Your task to perform on an android device: Go to privacy settings Image 0: 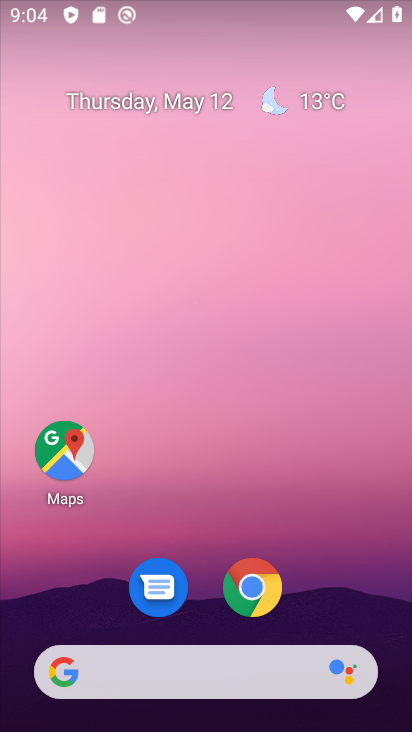
Step 0: drag from (225, 617) to (173, 59)
Your task to perform on an android device: Go to privacy settings Image 1: 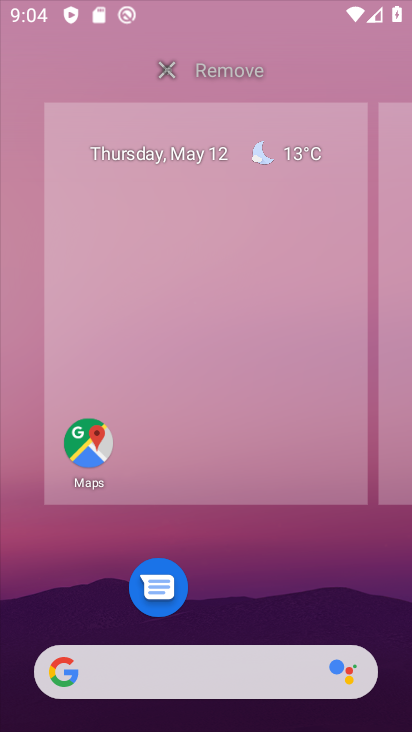
Step 1: click (232, 563)
Your task to perform on an android device: Go to privacy settings Image 2: 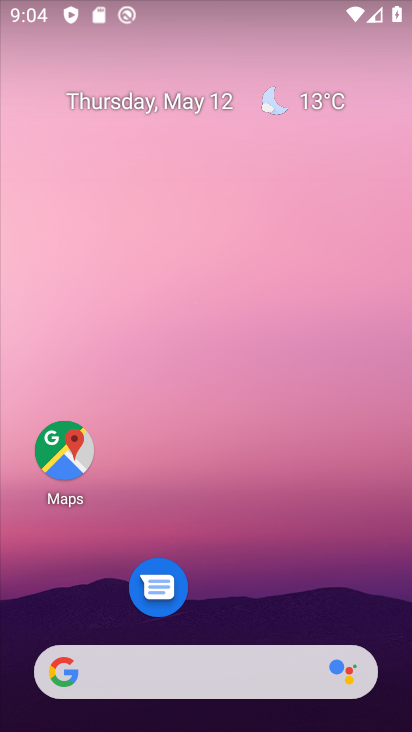
Step 2: drag from (232, 563) to (190, 20)
Your task to perform on an android device: Go to privacy settings Image 3: 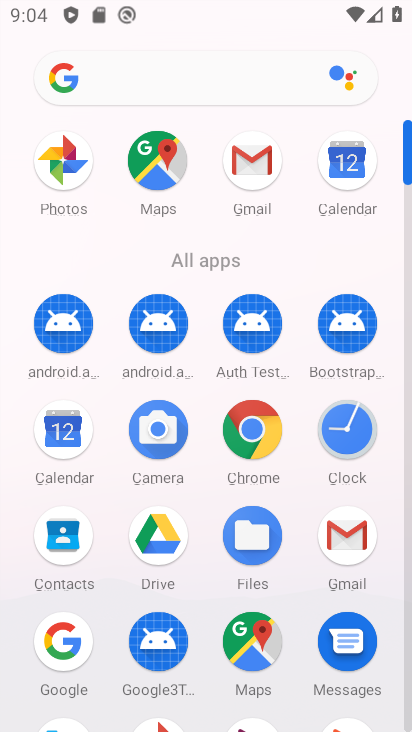
Step 3: drag from (214, 514) to (173, 2)
Your task to perform on an android device: Go to privacy settings Image 4: 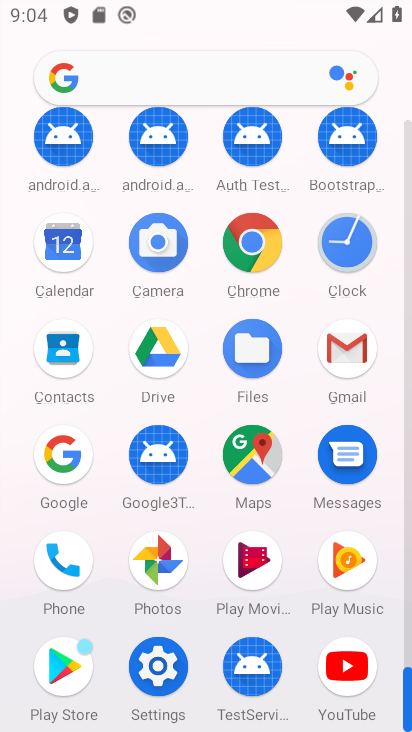
Step 4: click (144, 671)
Your task to perform on an android device: Go to privacy settings Image 5: 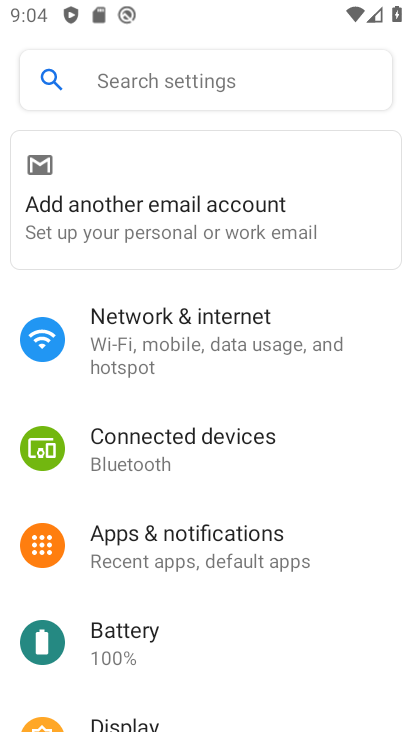
Step 5: drag from (161, 563) to (103, 33)
Your task to perform on an android device: Go to privacy settings Image 6: 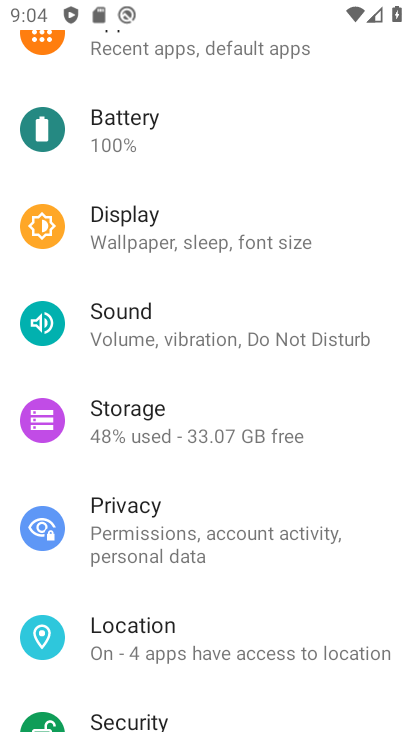
Step 6: click (167, 553)
Your task to perform on an android device: Go to privacy settings Image 7: 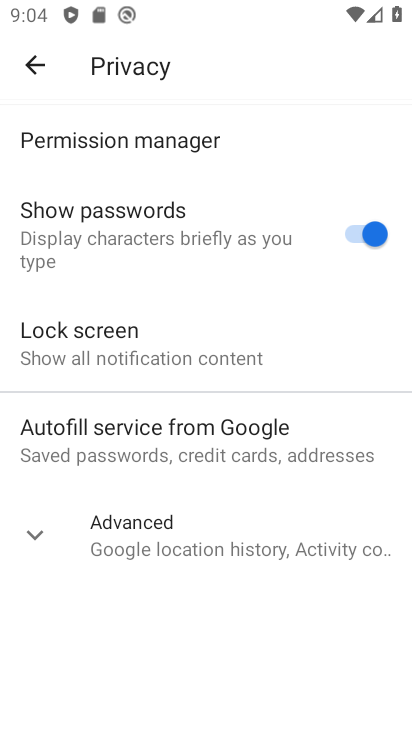
Step 7: task complete